Your task to perform on an android device: Go to Google maps Image 0: 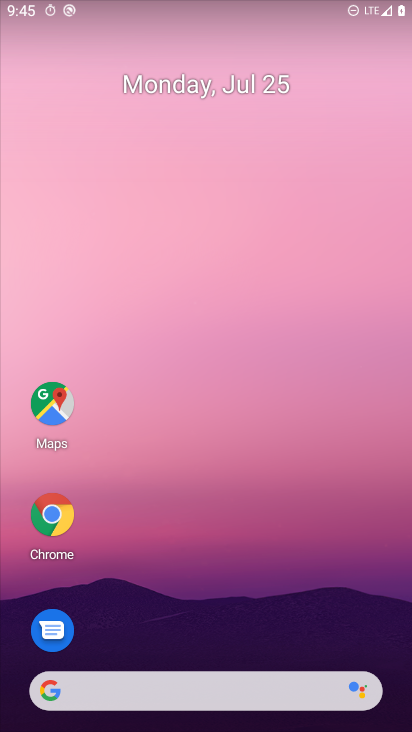
Step 0: click (64, 516)
Your task to perform on an android device: Go to Google maps Image 1: 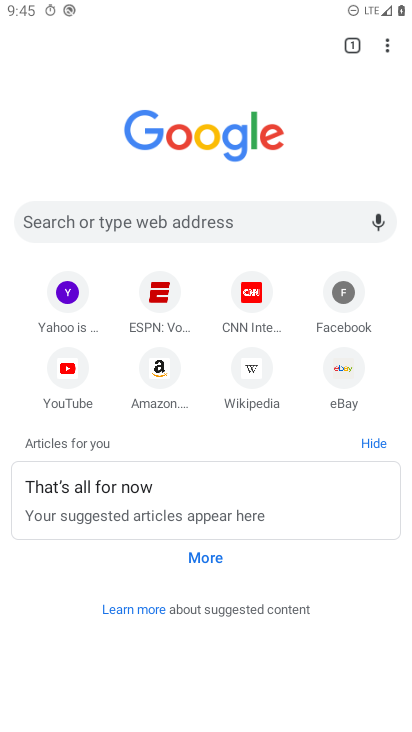
Step 1: click (396, 44)
Your task to perform on an android device: Go to Google maps Image 2: 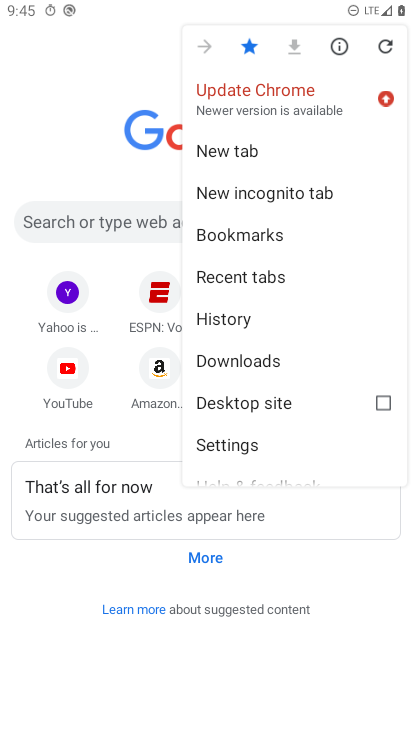
Step 2: press home button
Your task to perform on an android device: Go to Google maps Image 3: 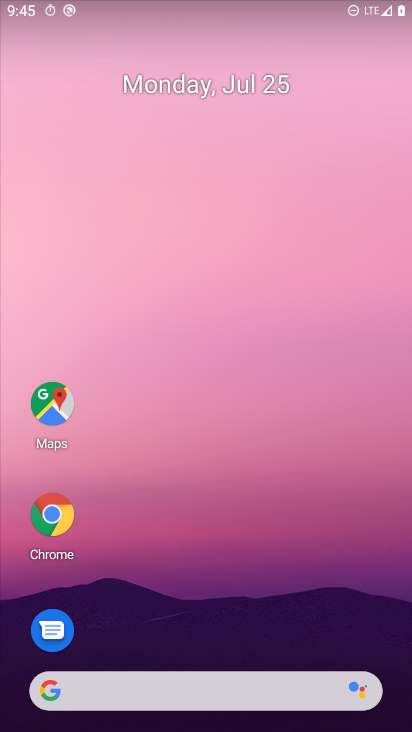
Step 3: click (19, 401)
Your task to perform on an android device: Go to Google maps Image 4: 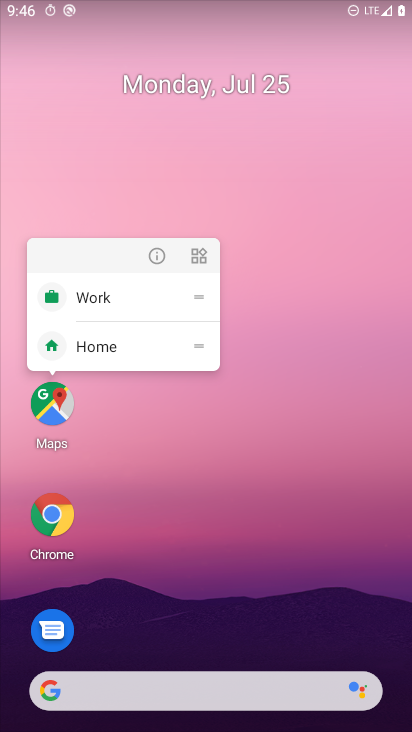
Step 4: click (45, 402)
Your task to perform on an android device: Go to Google maps Image 5: 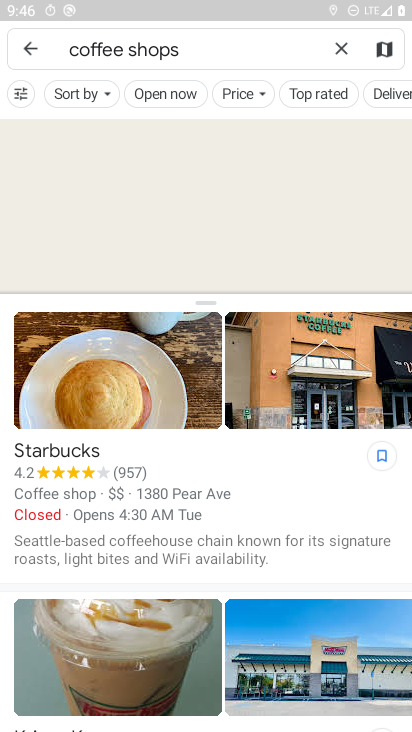
Step 5: click (28, 39)
Your task to perform on an android device: Go to Google maps Image 6: 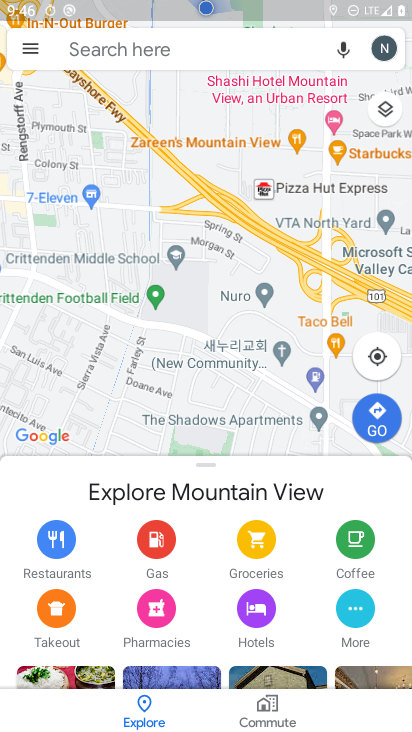
Step 6: task complete